Your task to perform on an android device: find snoozed emails in the gmail app Image 0: 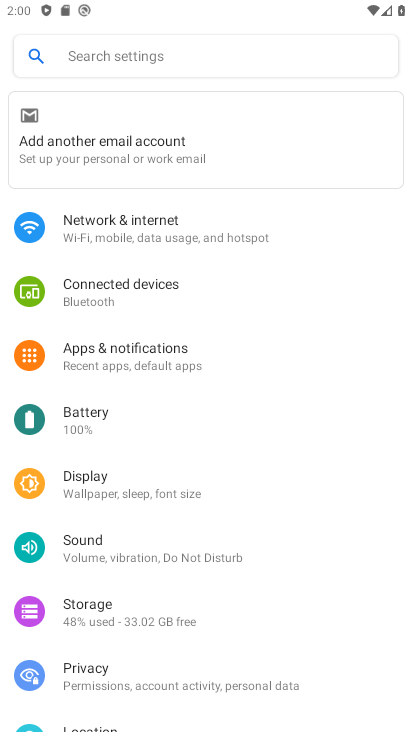
Step 0: press home button
Your task to perform on an android device: find snoozed emails in the gmail app Image 1: 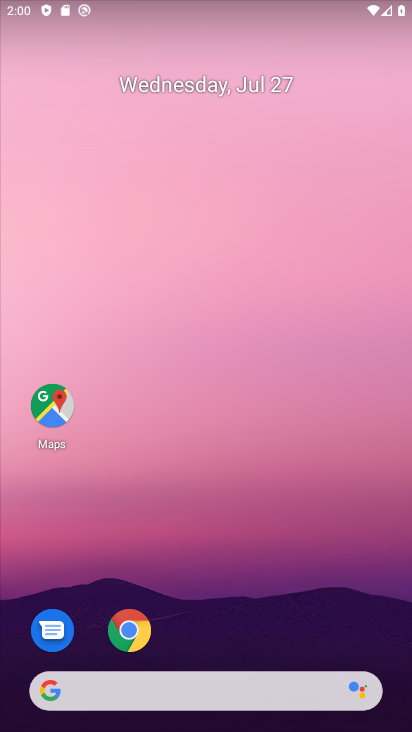
Step 1: drag from (240, 617) to (240, 181)
Your task to perform on an android device: find snoozed emails in the gmail app Image 2: 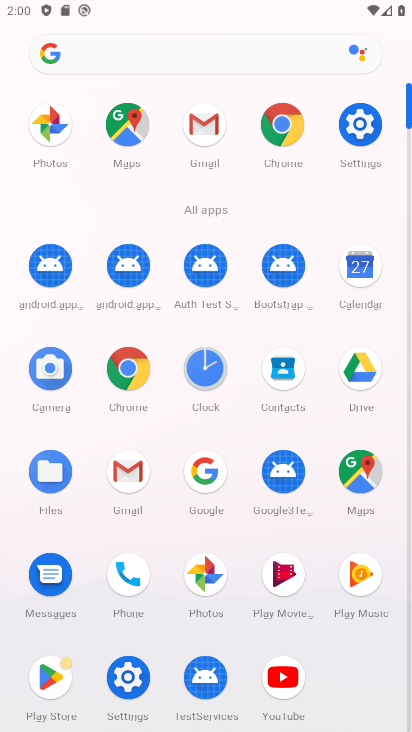
Step 2: click (117, 477)
Your task to perform on an android device: find snoozed emails in the gmail app Image 3: 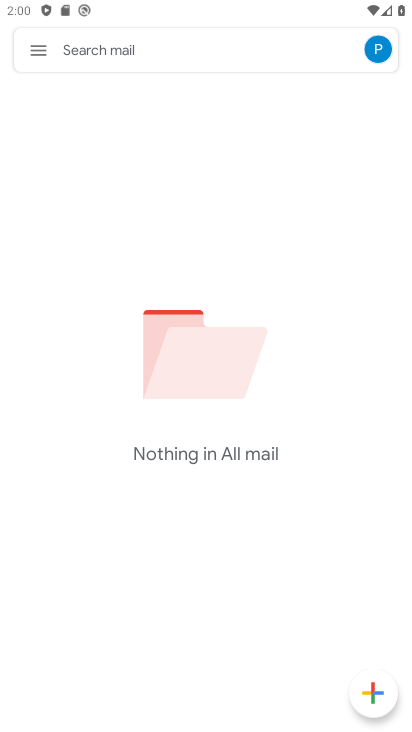
Step 3: click (36, 54)
Your task to perform on an android device: find snoozed emails in the gmail app Image 4: 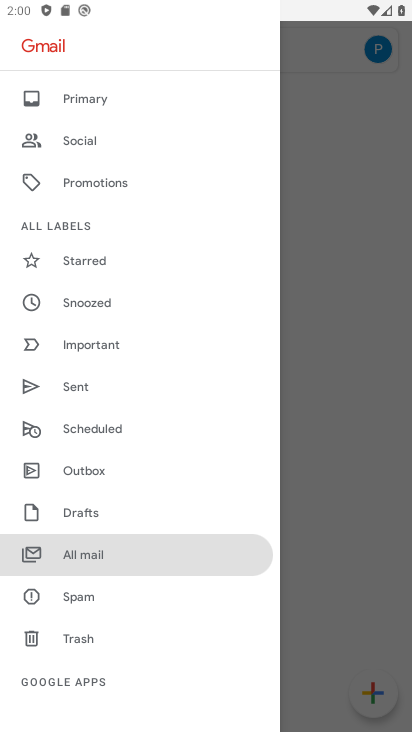
Step 4: click (101, 305)
Your task to perform on an android device: find snoozed emails in the gmail app Image 5: 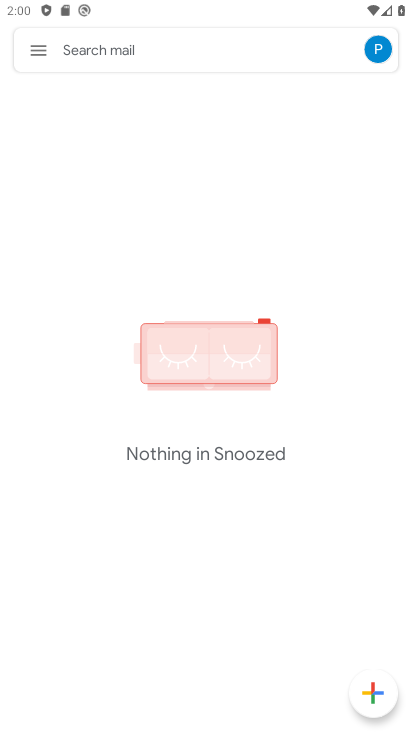
Step 5: task complete